Your task to perform on an android device: open wifi settings Image 0: 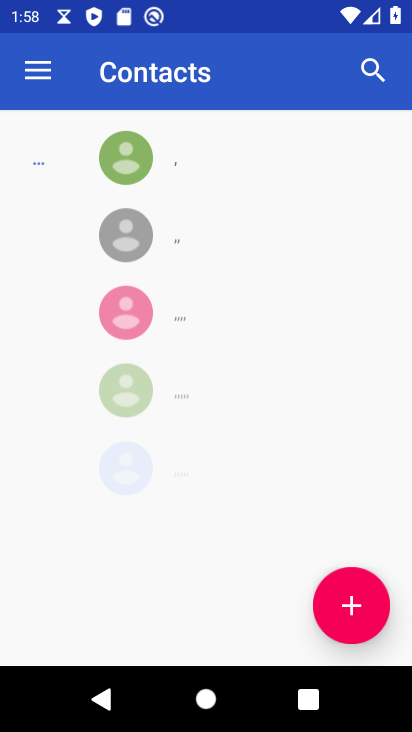
Step 0: drag from (364, 652) to (155, 5)
Your task to perform on an android device: open wifi settings Image 1: 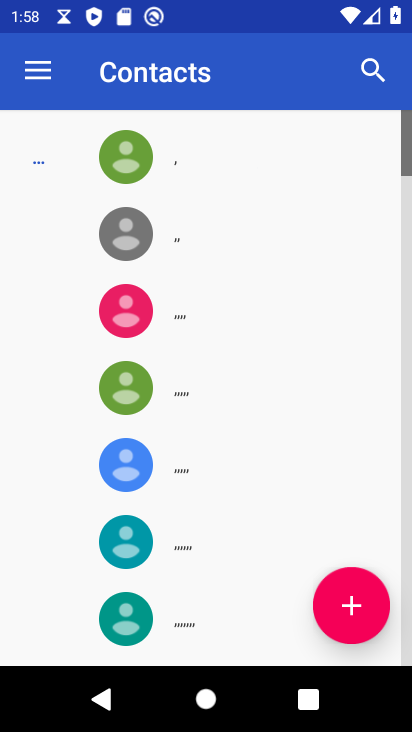
Step 1: press back button
Your task to perform on an android device: open wifi settings Image 2: 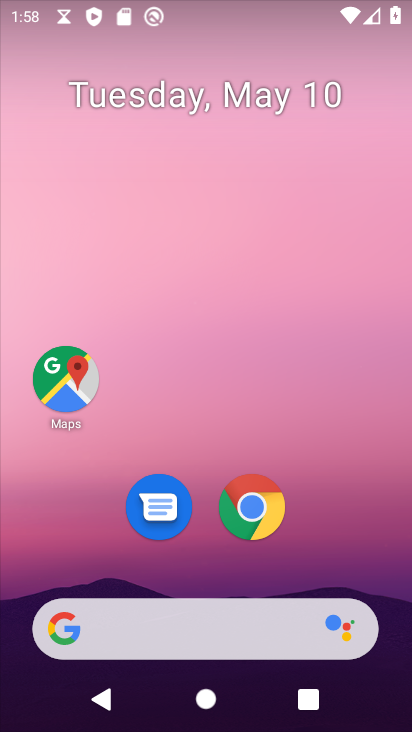
Step 2: drag from (326, 552) to (68, 22)
Your task to perform on an android device: open wifi settings Image 3: 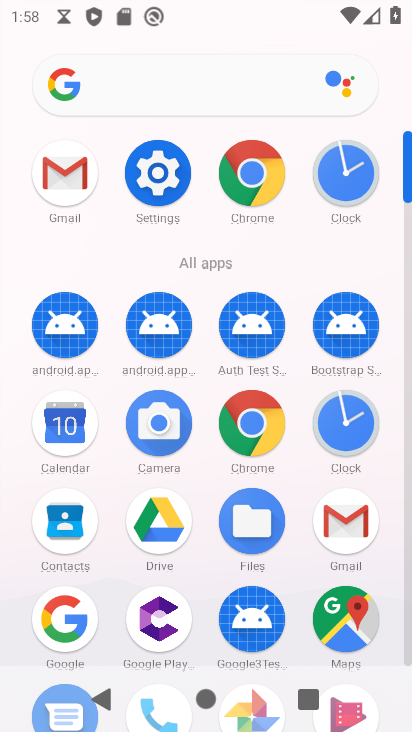
Step 3: click (160, 180)
Your task to perform on an android device: open wifi settings Image 4: 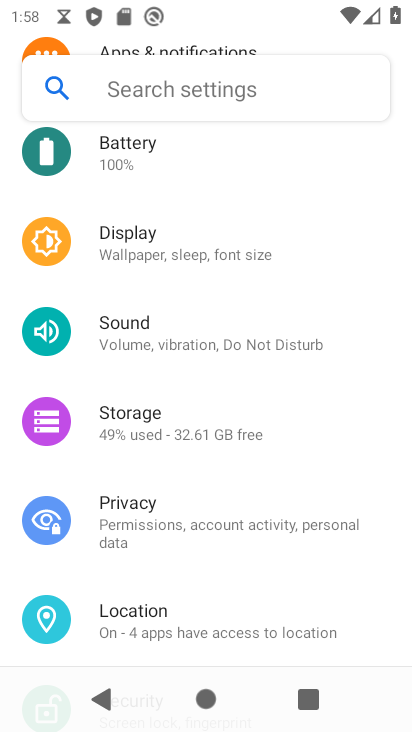
Step 4: drag from (131, 198) to (180, 388)
Your task to perform on an android device: open wifi settings Image 5: 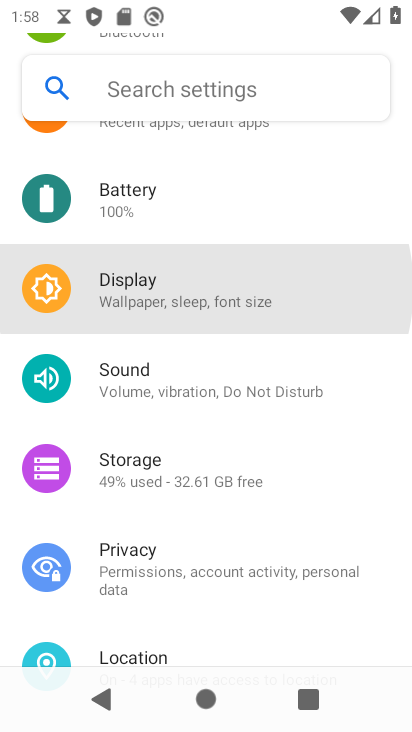
Step 5: drag from (130, 247) to (235, 674)
Your task to perform on an android device: open wifi settings Image 6: 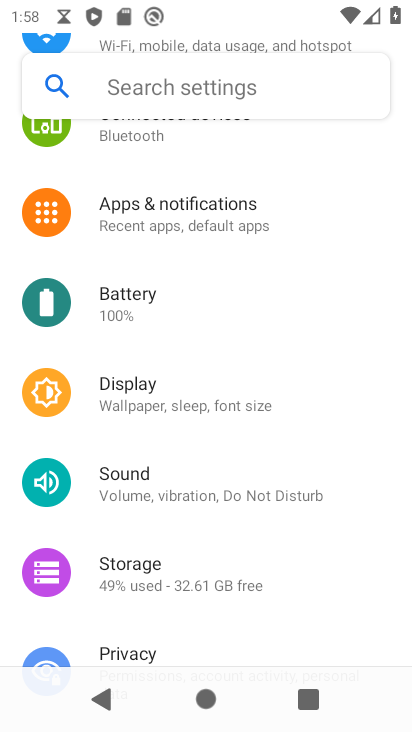
Step 6: drag from (160, 247) to (225, 597)
Your task to perform on an android device: open wifi settings Image 7: 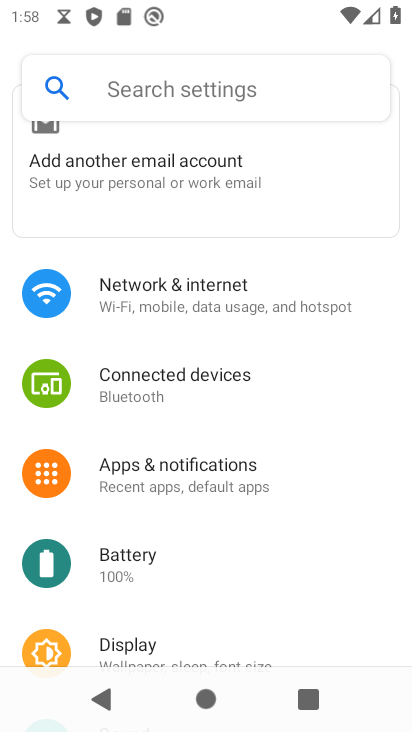
Step 7: drag from (98, 232) to (177, 598)
Your task to perform on an android device: open wifi settings Image 8: 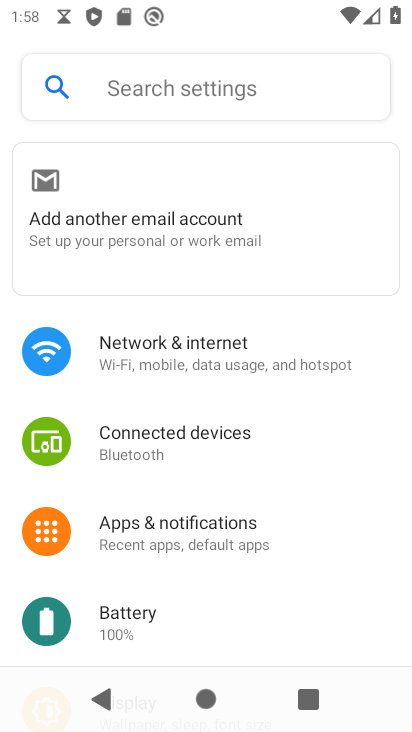
Step 8: click (184, 359)
Your task to perform on an android device: open wifi settings Image 9: 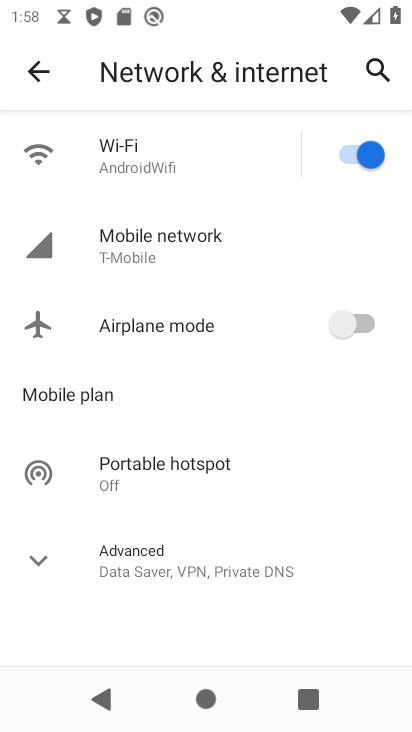
Step 9: task complete